Your task to perform on an android device: open wifi settings Image 0: 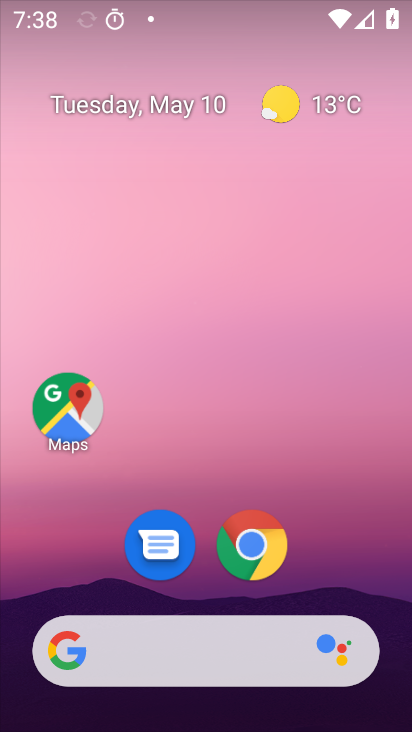
Step 0: press home button
Your task to perform on an android device: open wifi settings Image 1: 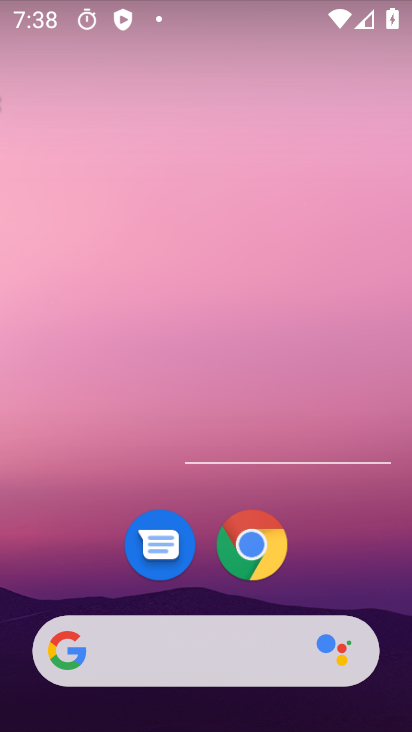
Step 1: drag from (207, 479) to (228, 4)
Your task to perform on an android device: open wifi settings Image 2: 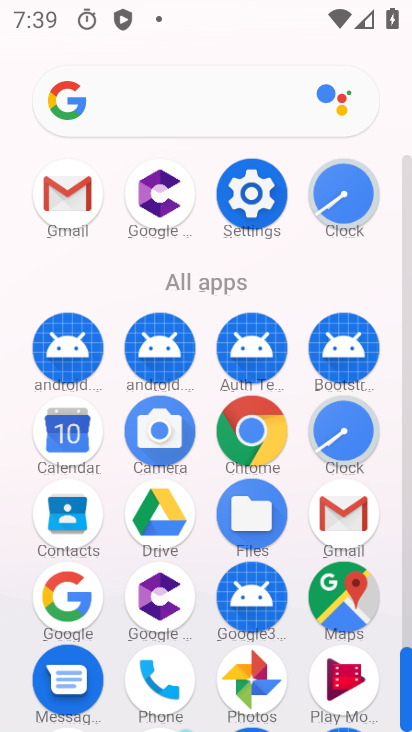
Step 2: click (254, 180)
Your task to perform on an android device: open wifi settings Image 3: 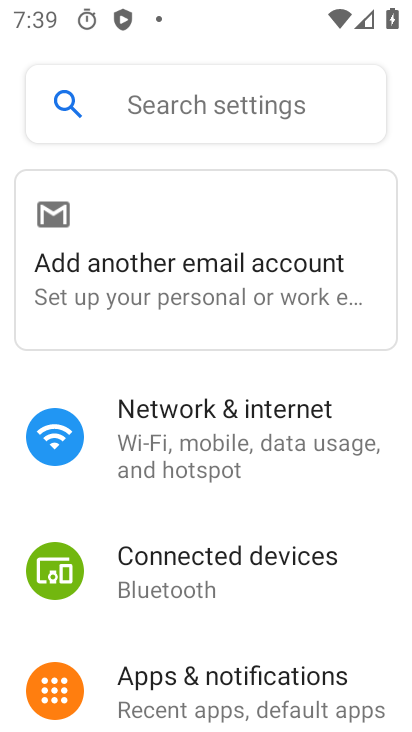
Step 3: click (167, 433)
Your task to perform on an android device: open wifi settings Image 4: 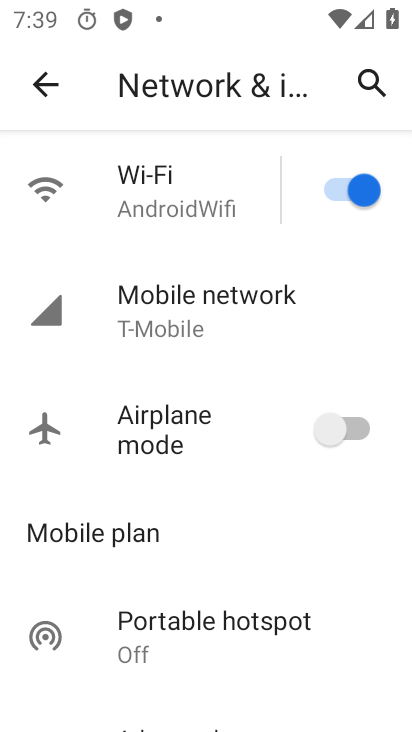
Step 4: click (206, 178)
Your task to perform on an android device: open wifi settings Image 5: 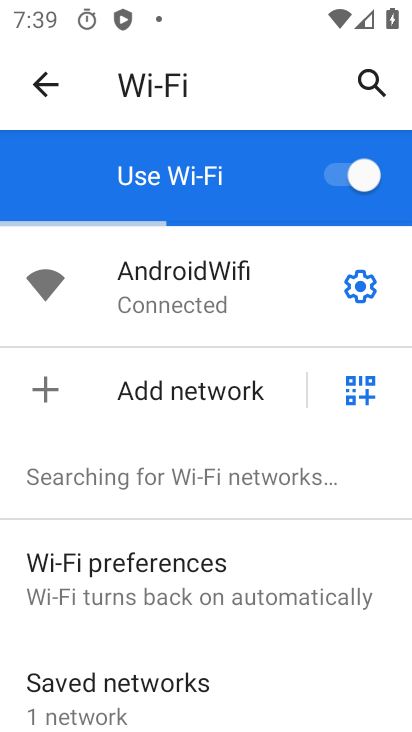
Step 5: task complete